Your task to perform on an android device: change timer sound Image 0: 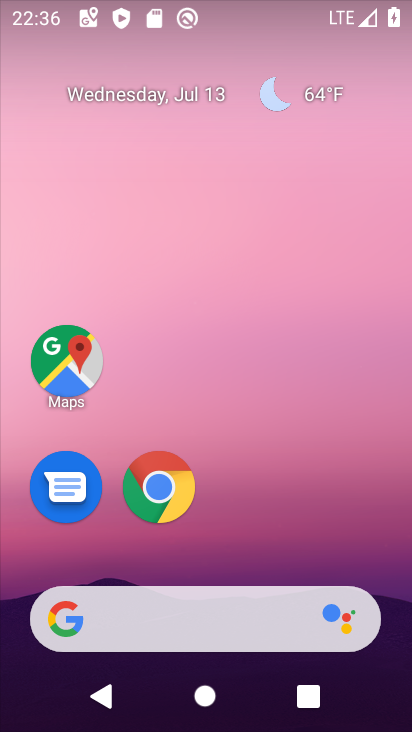
Step 0: drag from (240, 437) to (266, 34)
Your task to perform on an android device: change timer sound Image 1: 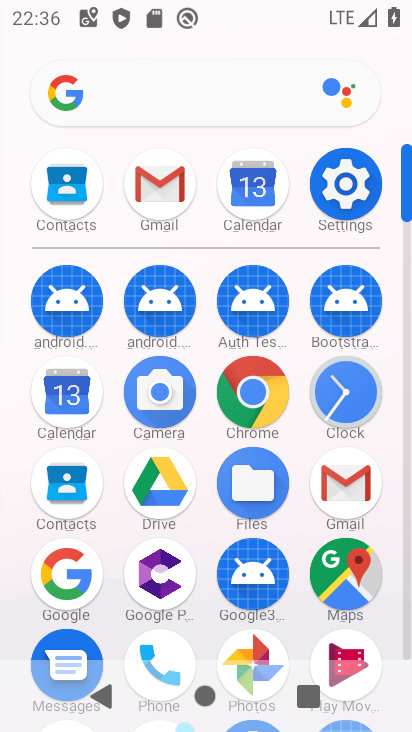
Step 1: click (313, 192)
Your task to perform on an android device: change timer sound Image 2: 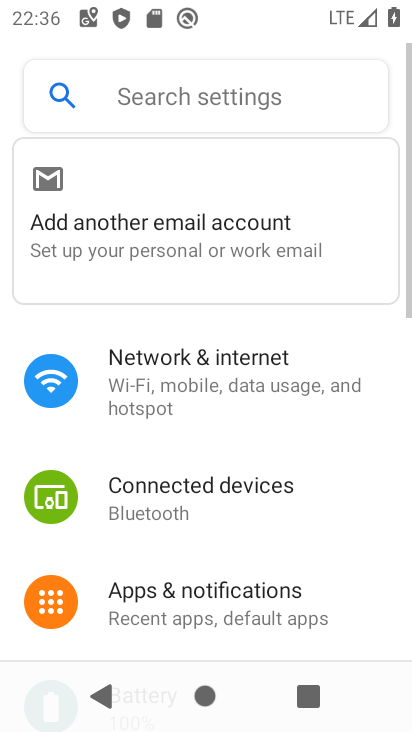
Step 2: drag from (168, 643) to (230, 210)
Your task to perform on an android device: change timer sound Image 3: 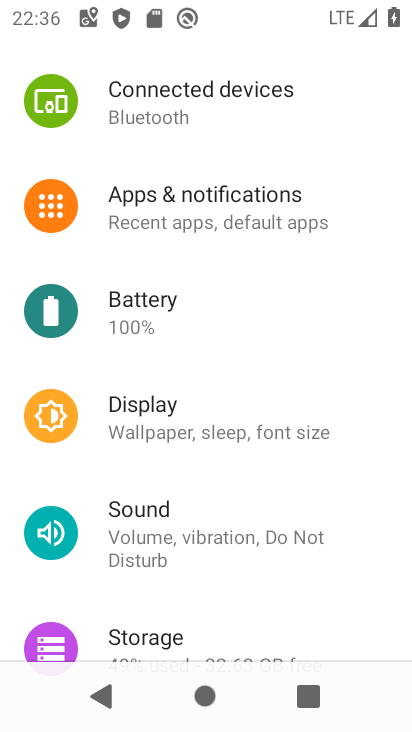
Step 3: press back button
Your task to perform on an android device: change timer sound Image 4: 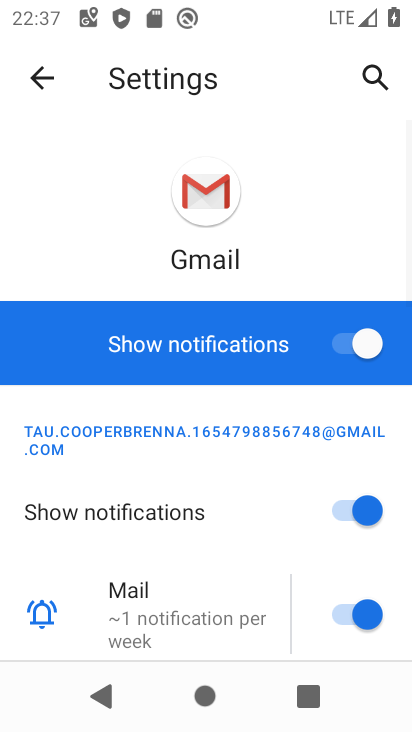
Step 4: press back button
Your task to perform on an android device: change timer sound Image 5: 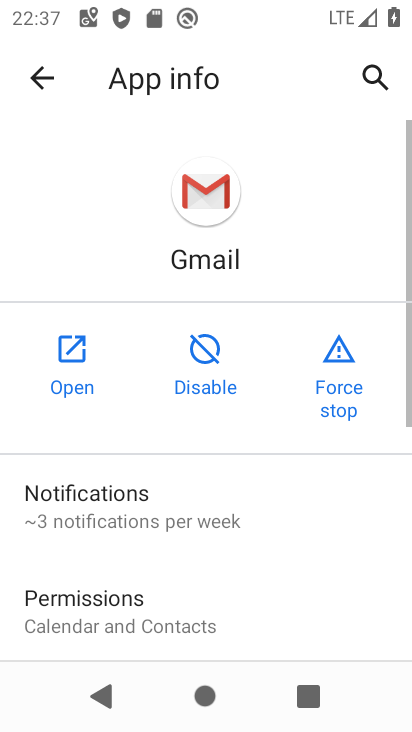
Step 5: press back button
Your task to perform on an android device: change timer sound Image 6: 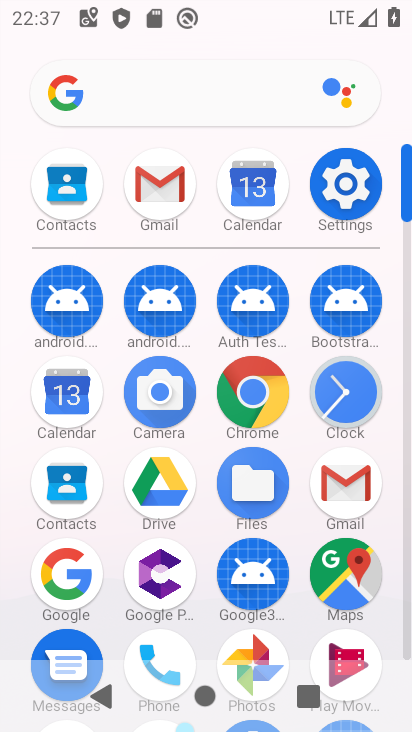
Step 6: click (340, 388)
Your task to perform on an android device: change timer sound Image 7: 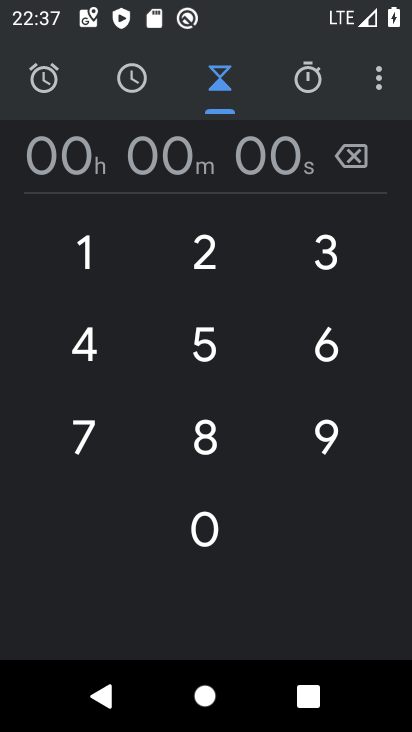
Step 7: click (379, 73)
Your task to perform on an android device: change timer sound Image 8: 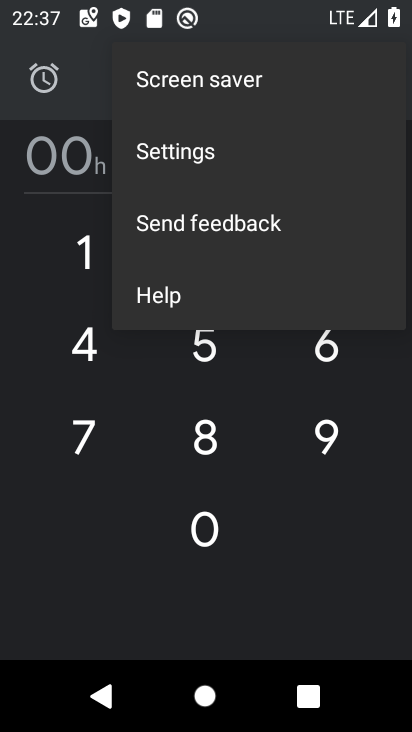
Step 8: click (204, 150)
Your task to perform on an android device: change timer sound Image 9: 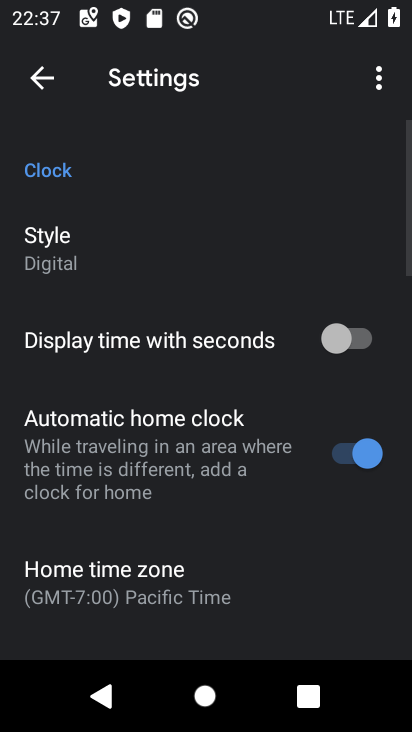
Step 9: drag from (172, 602) to (230, 122)
Your task to perform on an android device: change timer sound Image 10: 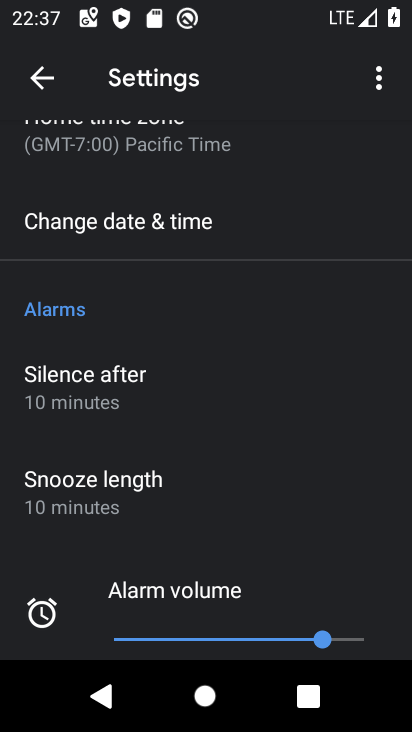
Step 10: drag from (155, 491) to (271, 26)
Your task to perform on an android device: change timer sound Image 11: 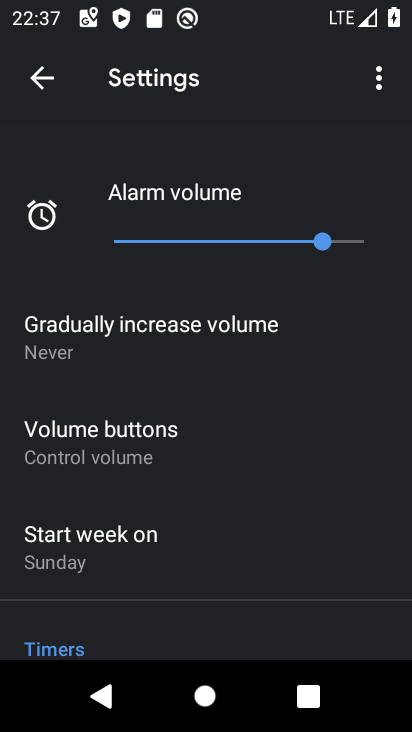
Step 11: drag from (222, 507) to (311, 129)
Your task to perform on an android device: change timer sound Image 12: 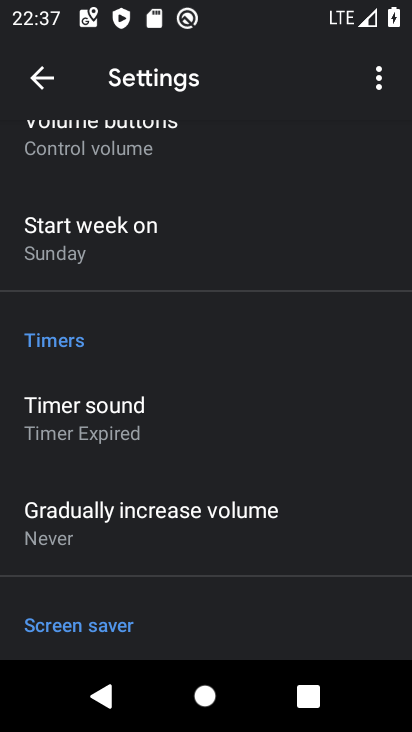
Step 12: click (102, 411)
Your task to perform on an android device: change timer sound Image 13: 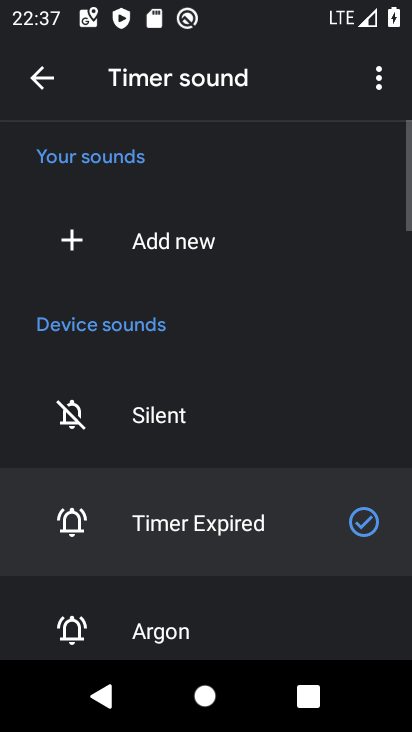
Step 13: click (168, 616)
Your task to perform on an android device: change timer sound Image 14: 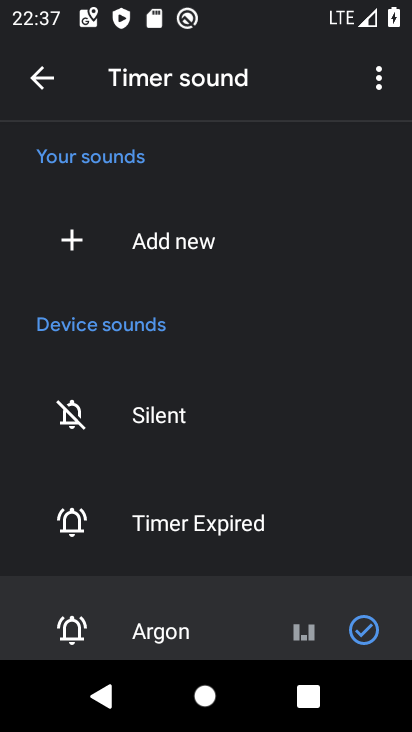
Step 14: task complete